Your task to perform on an android device: turn off improve location accuracy Image 0: 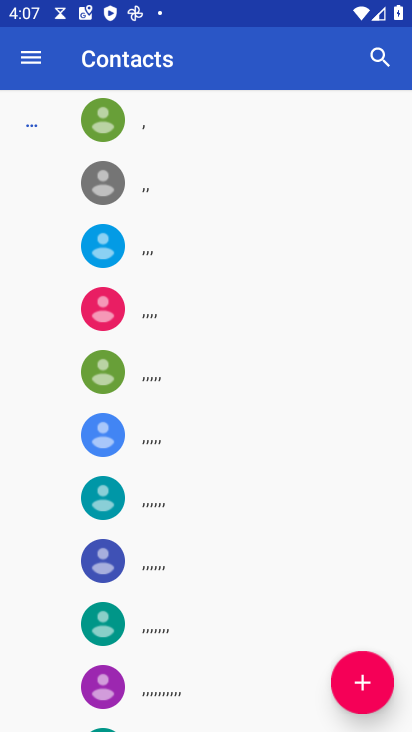
Step 0: press back button
Your task to perform on an android device: turn off improve location accuracy Image 1: 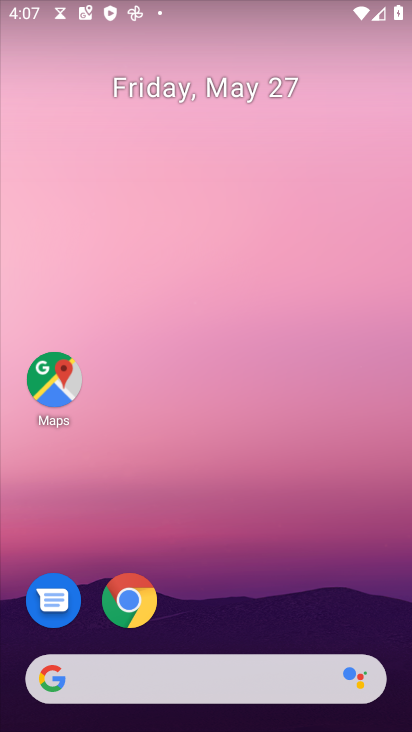
Step 1: drag from (241, 591) to (233, 170)
Your task to perform on an android device: turn off improve location accuracy Image 2: 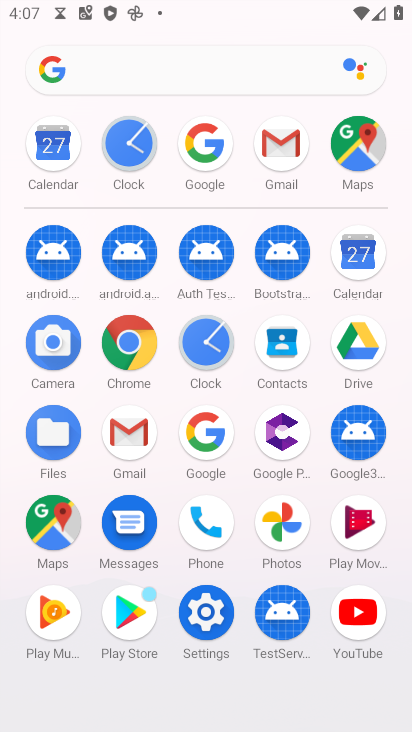
Step 2: click (207, 611)
Your task to perform on an android device: turn off improve location accuracy Image 3: 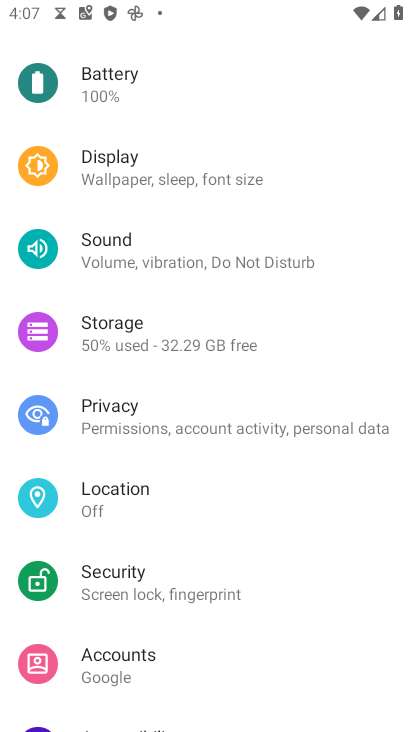
Step 3: click (134, 491)
Your task to perform on an android device: turn off improve location accuracy Image 4: 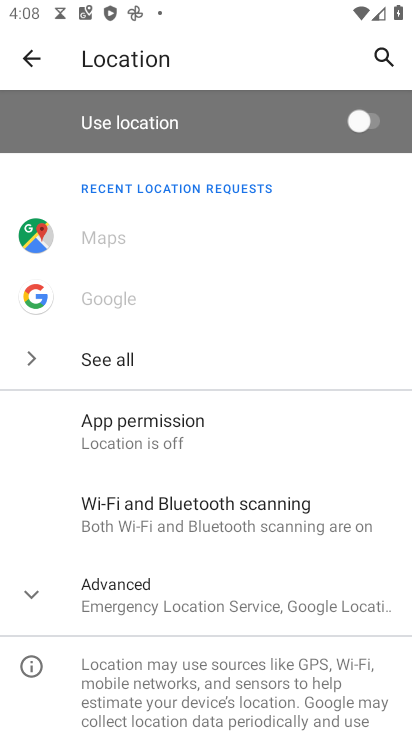
Step 4: click (171, 598)
Your task to perform on an android device: turn off improve location accuracy Image 5: 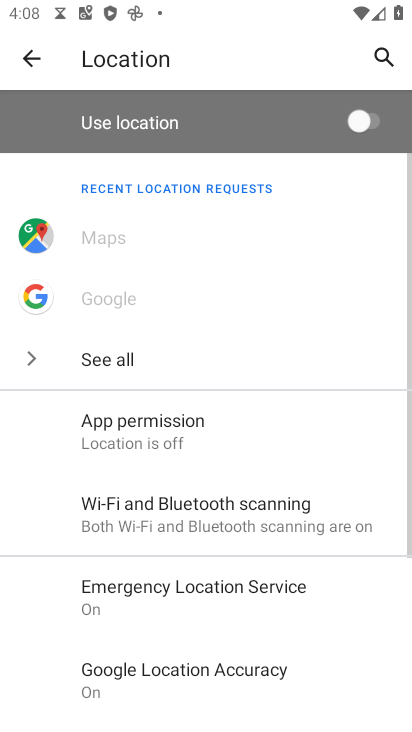
Step 5: drag from (186, 639) to (206, 549)
Your task to perform on an android device: turn off improve location accuracy Image 6: 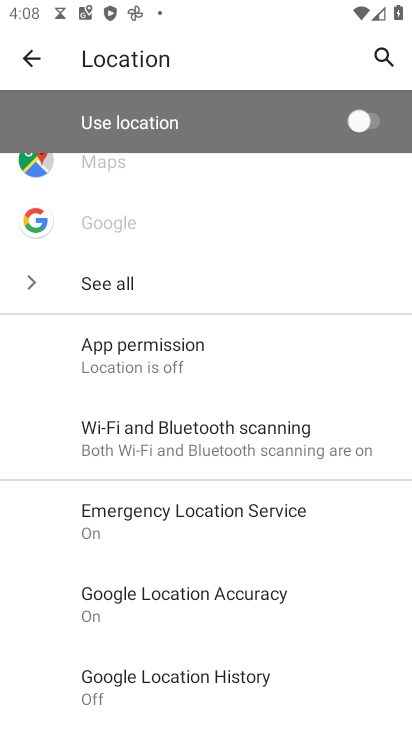
Step 6: click (216, 591)
Your task to perform on an android device: turn off improve location accuracy Image 7: 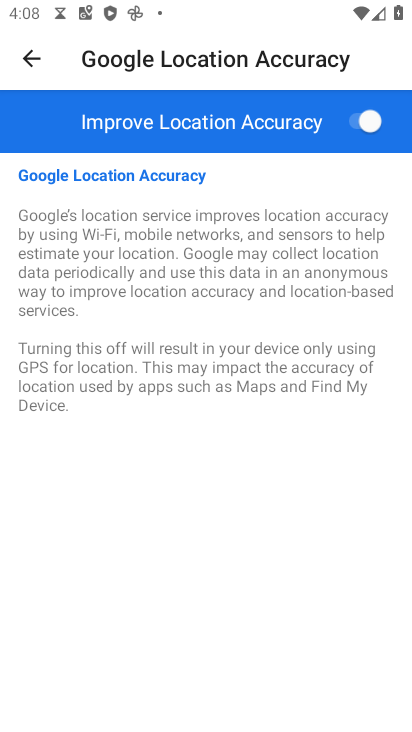
Step 7: click (364, 124)
Your task to perform on an android device: turn off improve location accuracy Image 8: 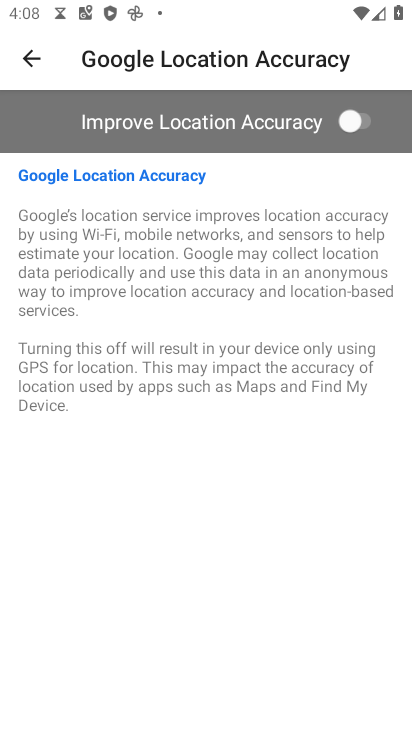
Step 8: task complete